Your task to perform on an android device: toggle airplane mode Image 0: 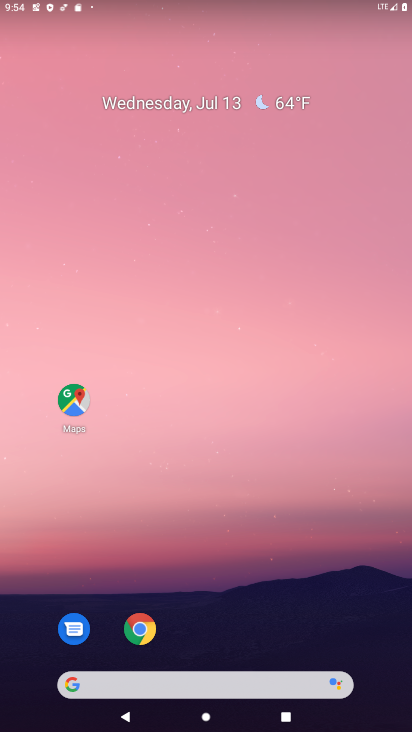
Step 0: drag from (240, 615) to (316, 209)
Your task to perform on an android device: toggle airplane mode Image 1: 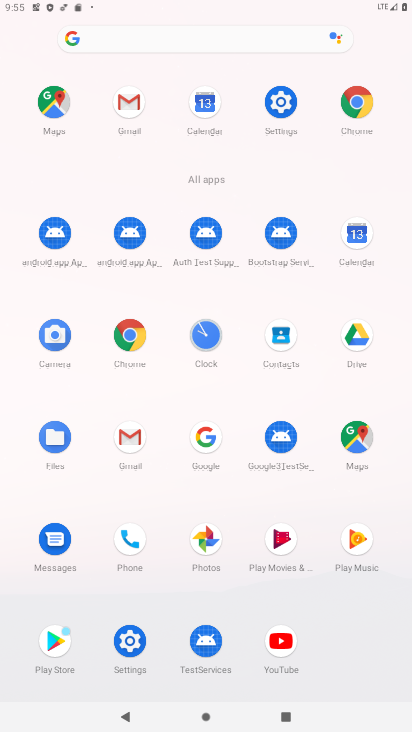
Step 1: click (277, 101)
Your task to perform on an android device: toggle airplane mode Image 2: 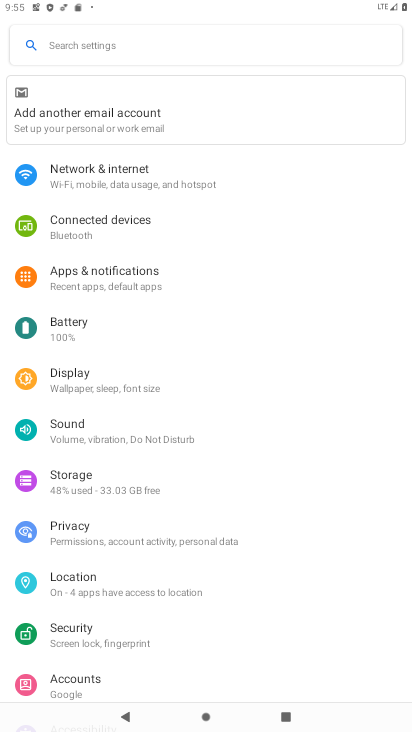
Step 2: click (92, 167)
Your task to perform on an android device: toggle airplane mode Image 3: 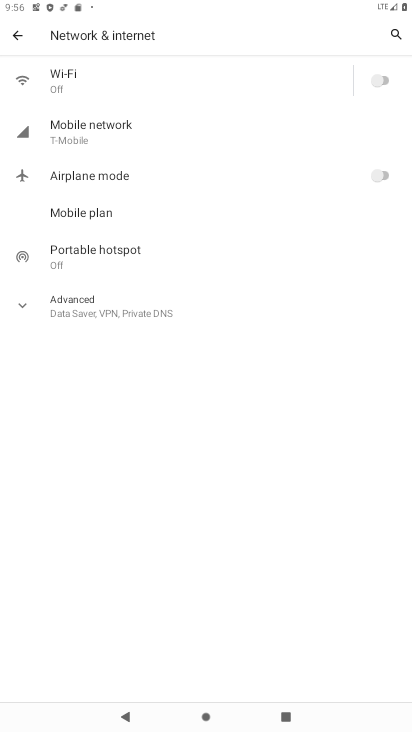
Step 3: click (381, 173)
Your task to perform on an android device: toggle airplane mode Image 4: 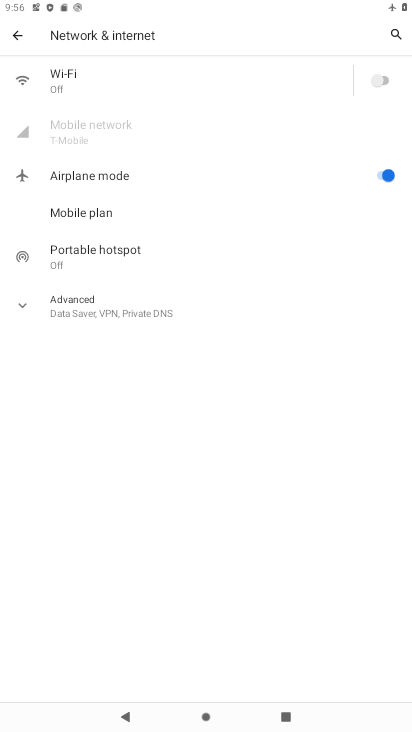
Step 4: task complete